Your task to perform on an android device: Open the Play Movies app and select the watchlist tab. Image 0: 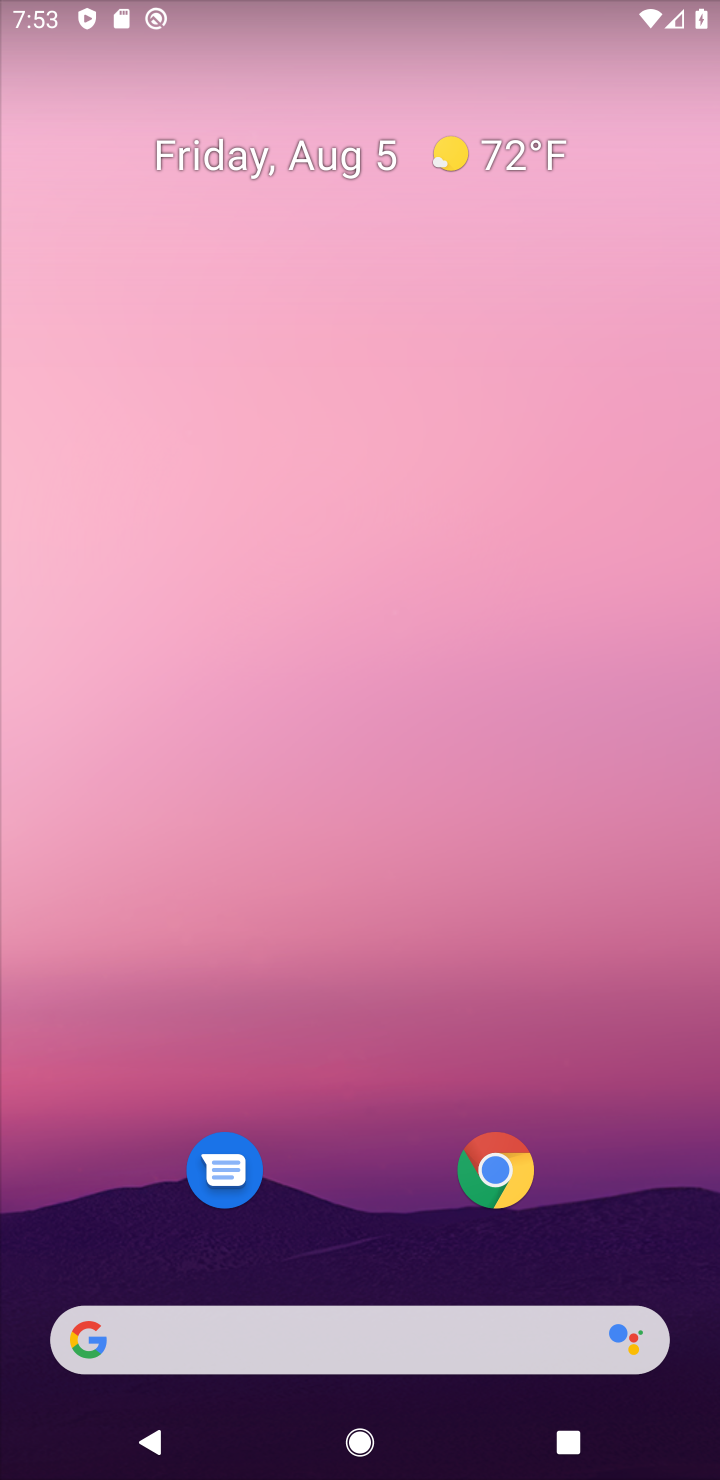
Step 0: drag from (679, 1257) to (623, 189)
Your task to perform on an android device: Open the Play Movies app and select the watchlist tab. Image 1: 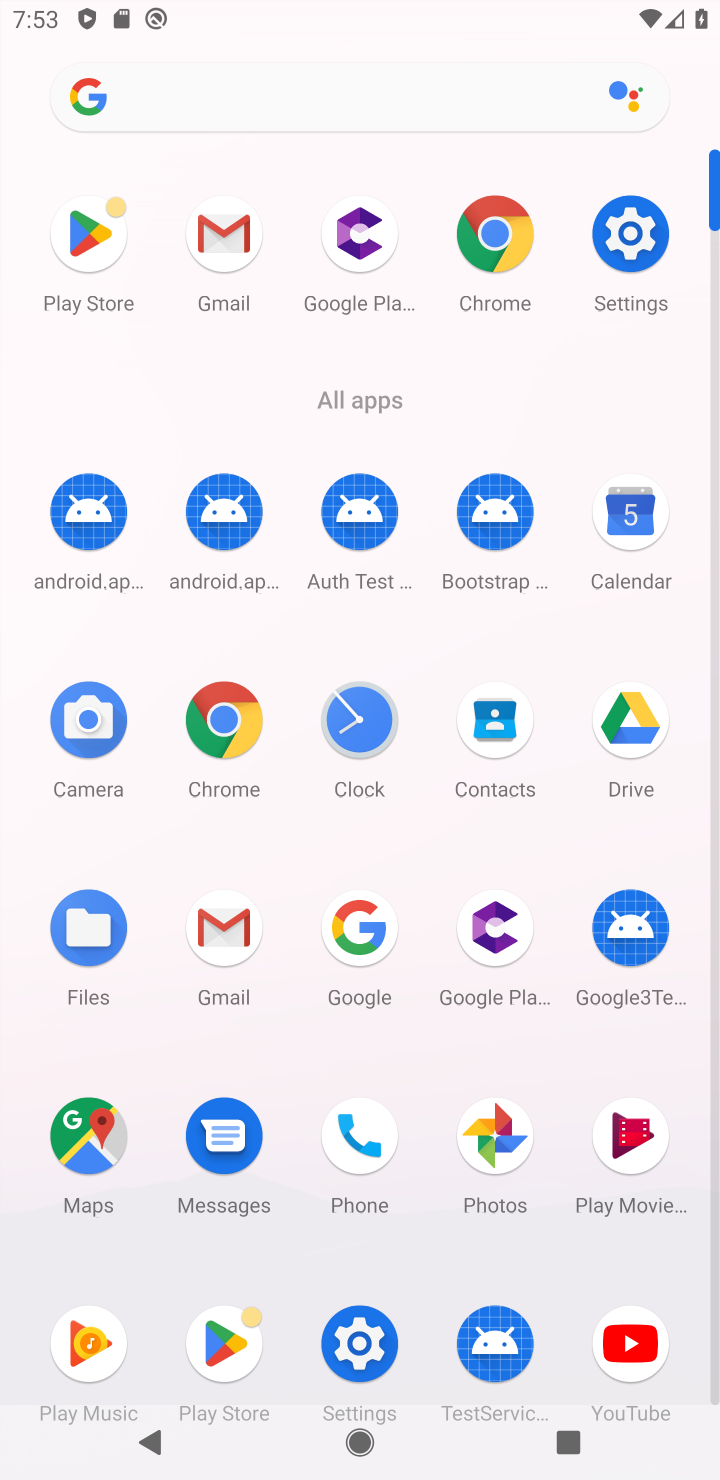
Step 1: click (623, 1136)
Your task to perform on an android device: Open the Play Movies app and select the watchlist tab. Image 2: 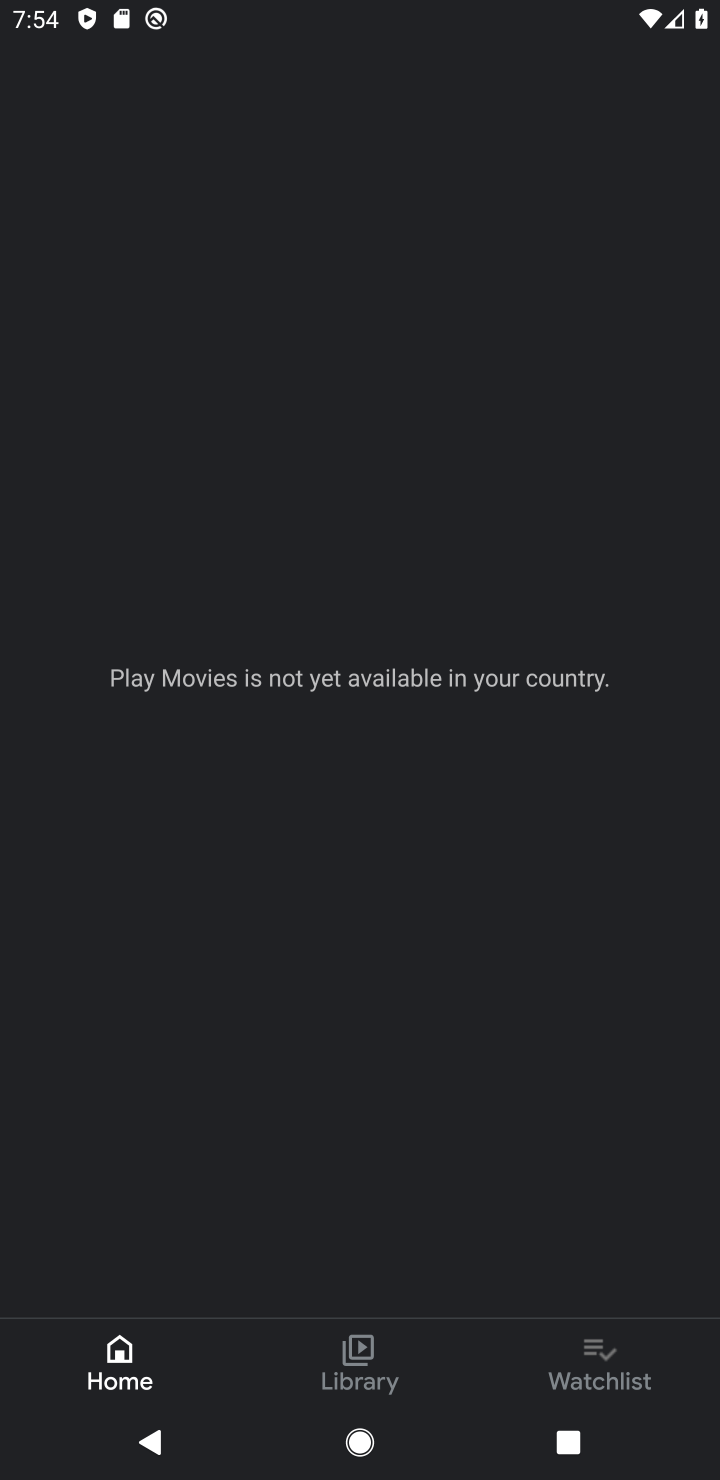
Step 2: click (597, 1361)
Your task to perform on an android device: Open the Play Movies app and select the watchlist tab. Image 3: 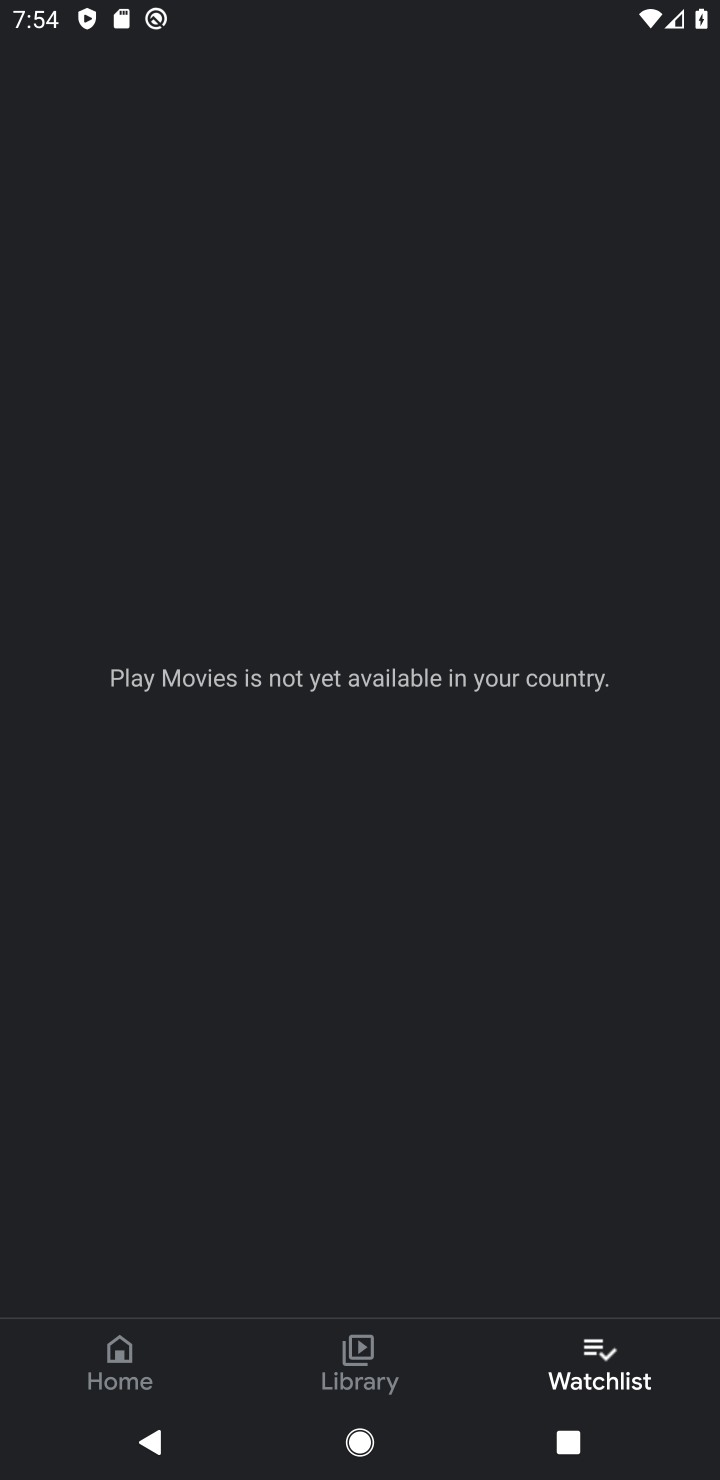
Step 3: task complete